Your task to perform on an android device: Show me the alarms in the clock app Image 0: 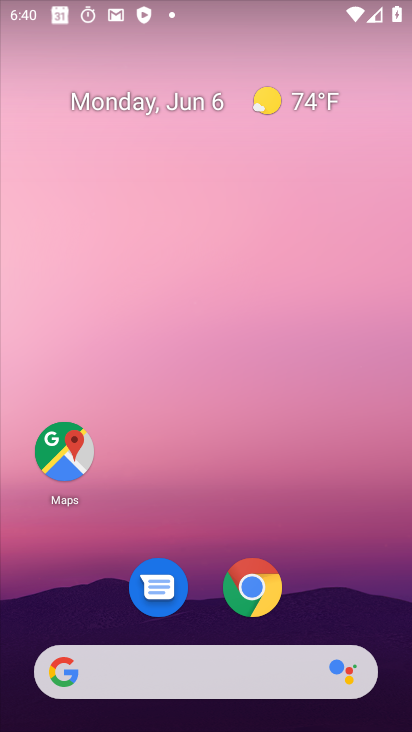
Step 0: drag from (385, 639) to (328, 115)
Your task to perform on an android device: Show me the alarms in the clock app Image 1: 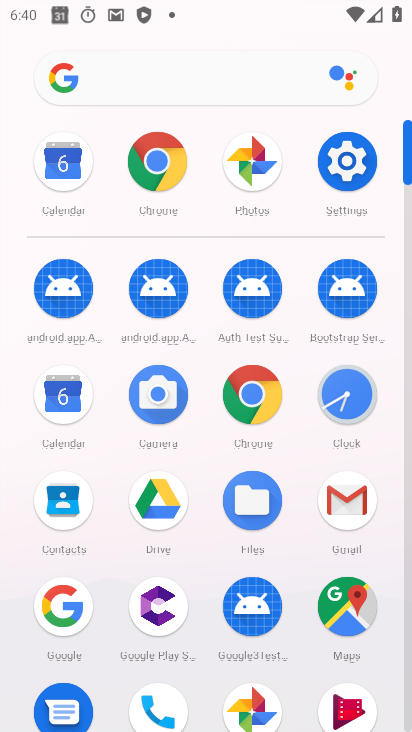
Step 1: click (351, 389)
Your task to perform on an android device: Show me the alarms in the clock app Image 2: 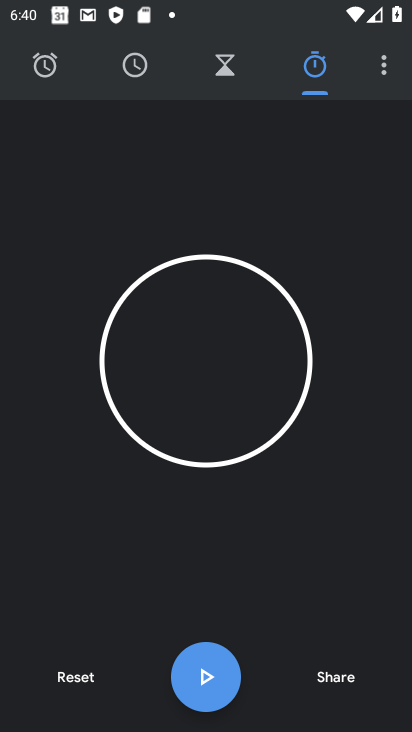
Step 2: click (47, 63)
Your task to perform on an android device: Show me the alarms in the clock app Image 3: 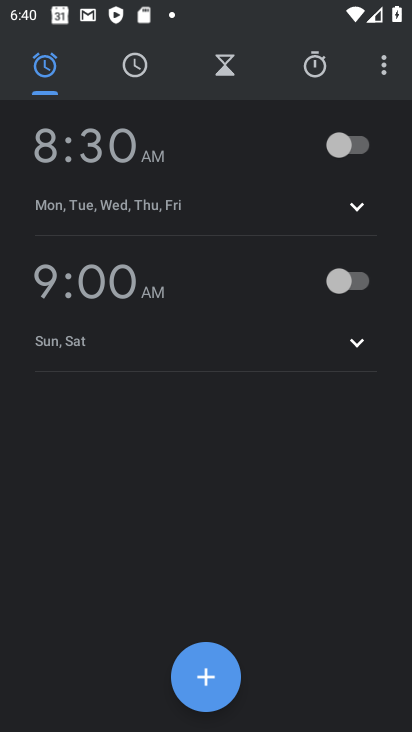
Step 3: task complete